Your task to perform on an android device: turn off notifications in google photos Image 0: 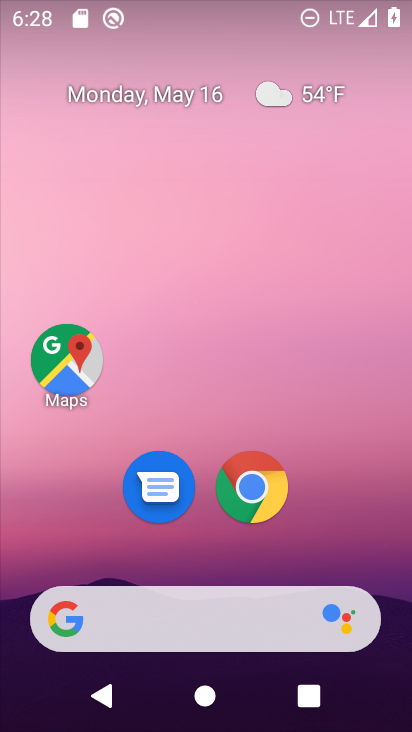
Step 0: drag from (187, 581) to (266, 192)
Your task to perform on an android device: turn off notifications in google photos Image 1: 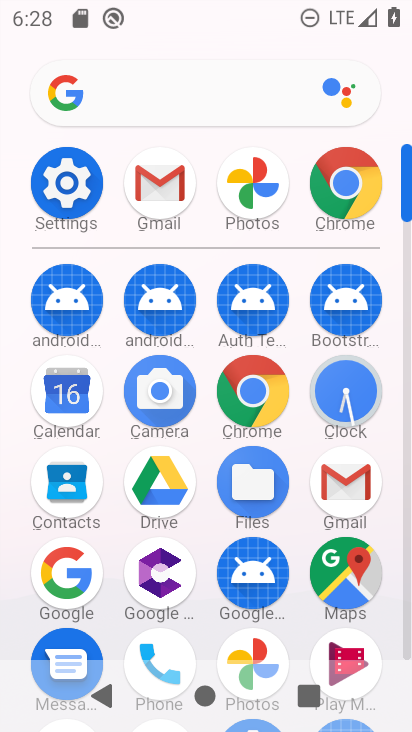
Step 1: drag from (191, 629) to (244, 309)
Your task to perform on an android device: turn off notifications in google photos Image 2: 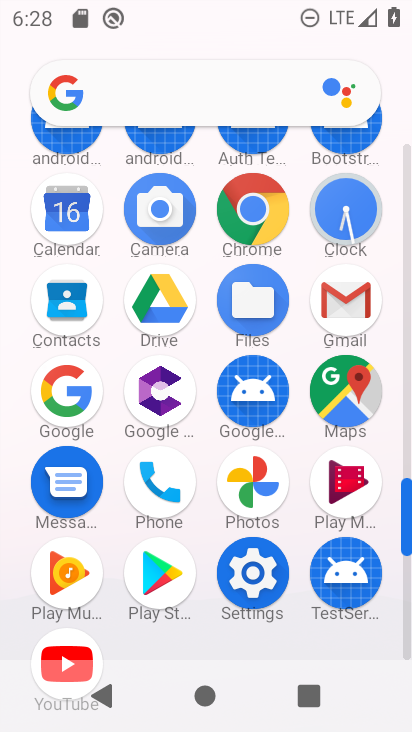
Step 2: click (262, 482)
Your task to perform on an android device: turn off notifications in google photos Image 3: 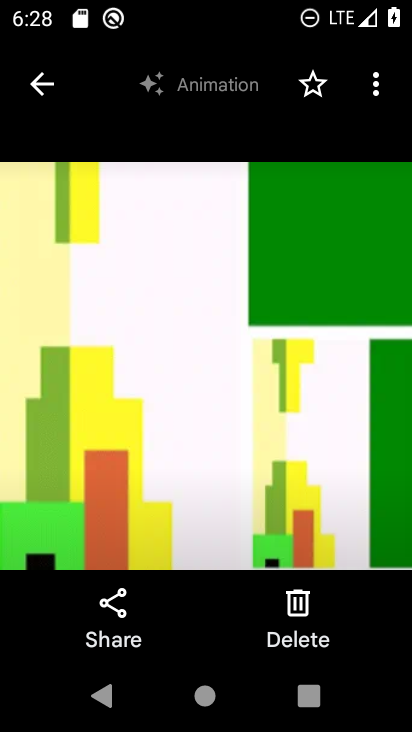
Step 3: click (34, 91)
Your task to perform on an android device: turn off notifications in google photos Image 4: 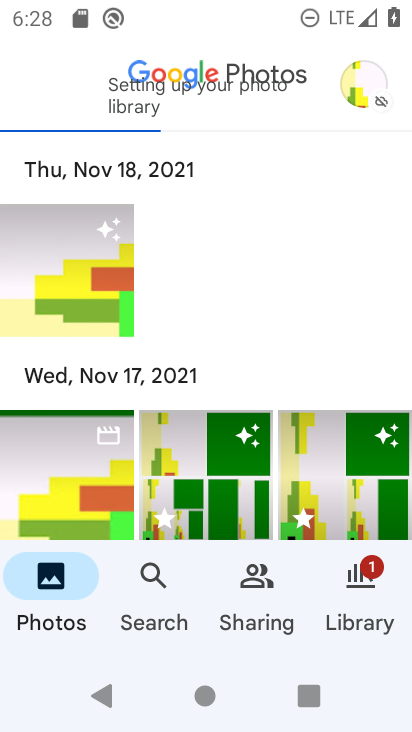
Step 4: click (371, 82)
Your task to perform on an android device: turn off notifications in google photos Image 5: 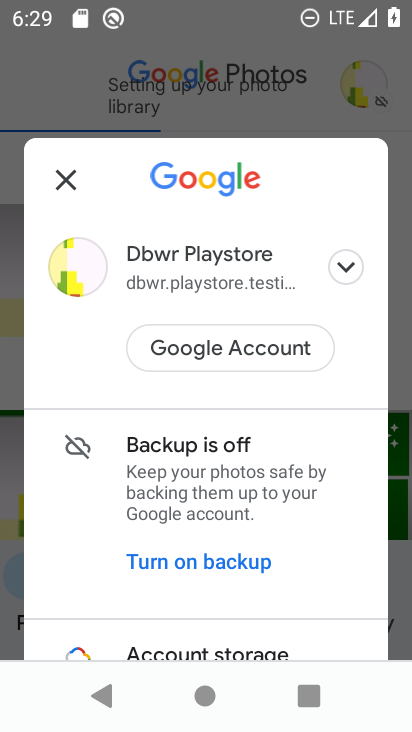
Step 5: drag from (223, 601) to (261, 272)
Your task to perform on an android device: turn off notifications in google photos Image 6: 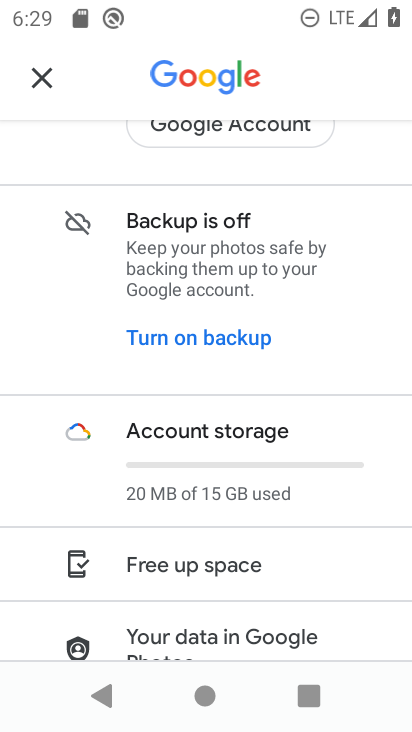
Step 6: drag from (227, 135) to (209, 439)
Your task to perform on an android device: turn off notifications in google photos Image 7: 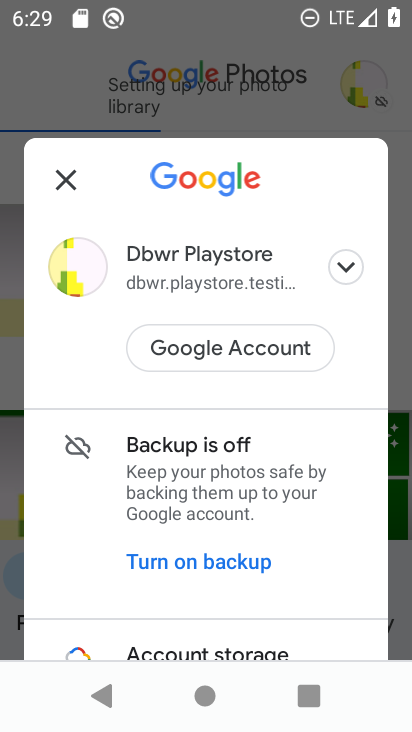
Step 7: drag from (254, 632) to (252, 269)
Your task to perform on an android device: turn off notifications in google photos Image 8: 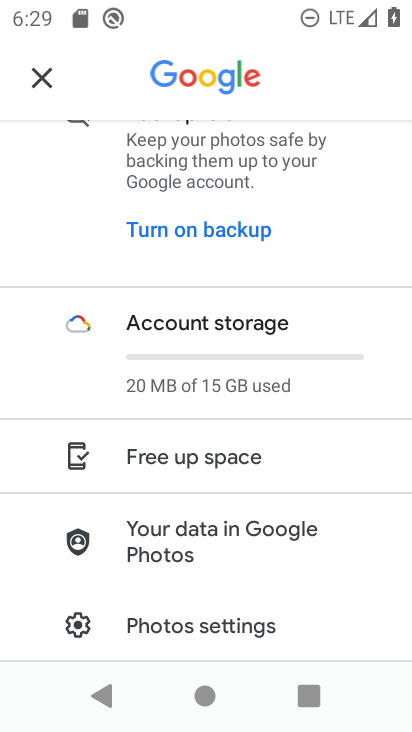
Step 8: drag from (181, 641) to (198, 278)
Your task to perform on an android device: turn off notifications in google photos Image 9: 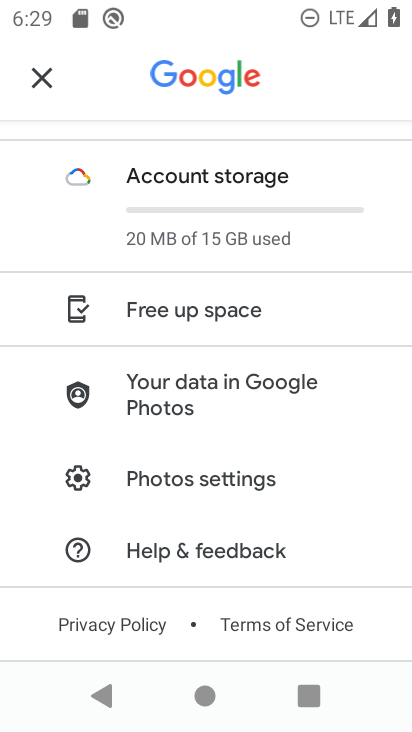
Step 9: click (173, 484)
Your task to perform on an android device: turn off notifications in google photos Image 10: 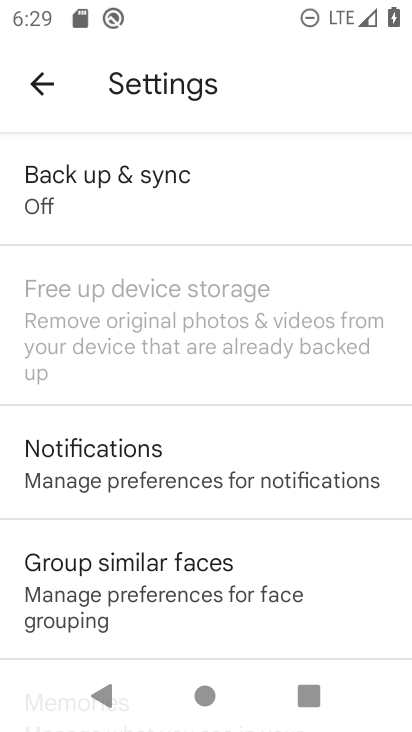
Step 10: click (124, 467)
Your task to perform on an android device: turn off notifications in google photos Image 11: 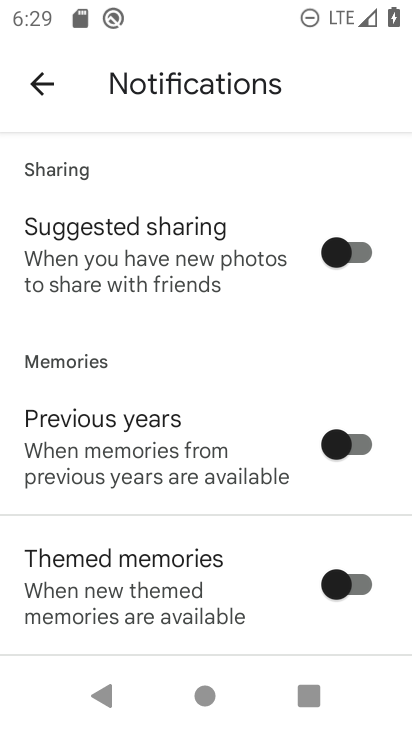
Step 11: drag from (136, 620) to (172, 356)
Your task to perform on an android device: turn off notifications in google photos Image 12: 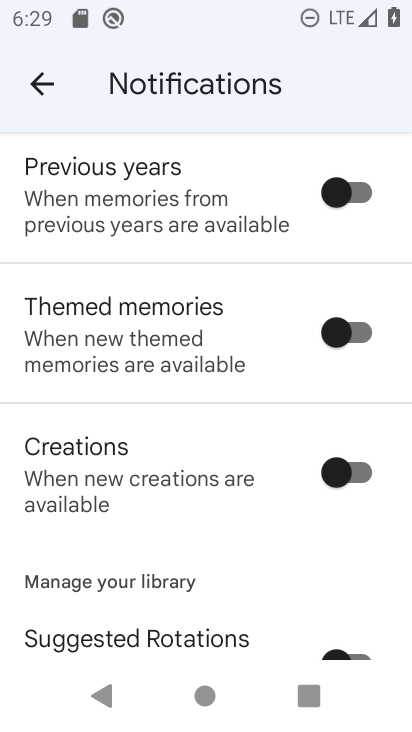
Step 12: drag from (150, 628) to (199, 279)
Your task to perform on an android device: turn off notifications in google photos Image 13: 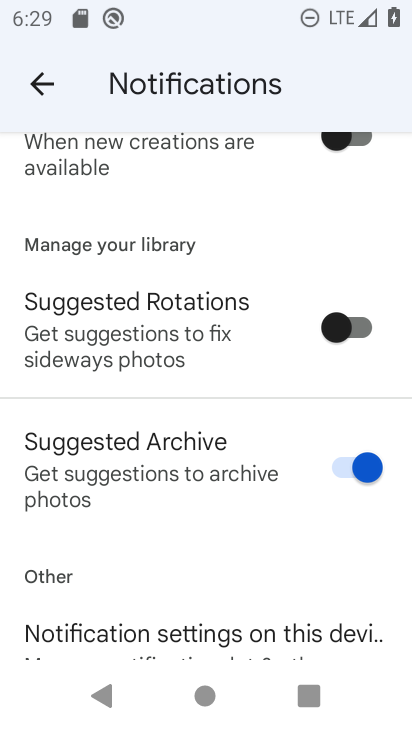
Step 13: click (201, 343)
Your task to perform on an android device: turn off notifications in google photos Image 14: 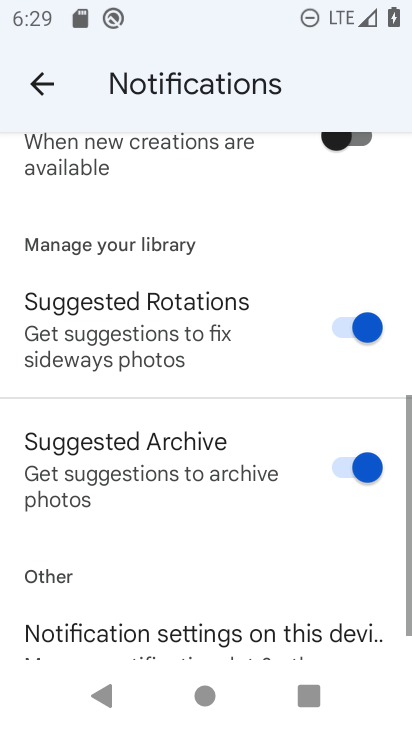
Step 14: drag from (161, 639) to (179, 302)
Your task to perform on an android device: turn off notifications in google photos Image 15: 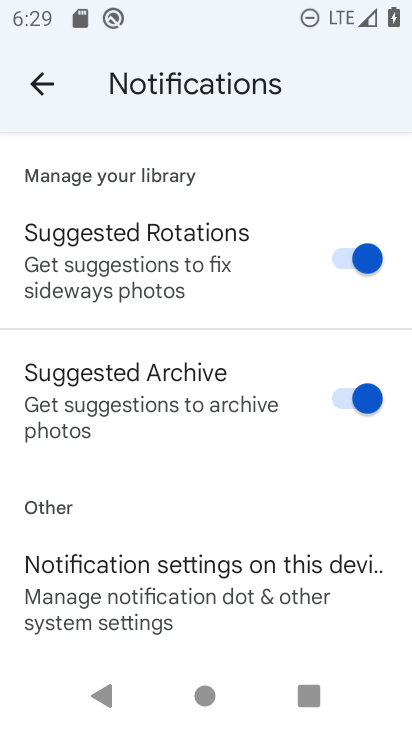
Step 15: click (104, 594)
Your task to perform on an android device: turn off notifications in google photos Image 16: 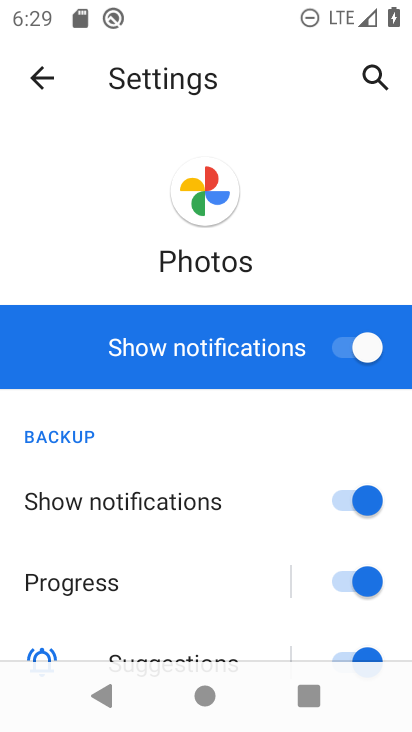
Step 16: click (340, 345)
Your task to perform on an android device: turn off notifications in google photos Image 17: 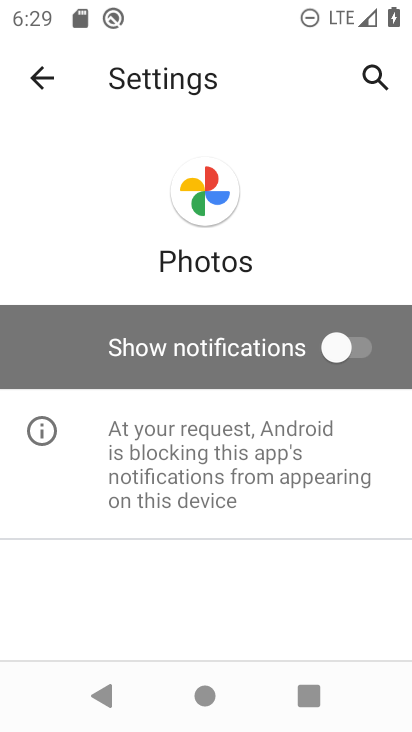
Step 17: task complete